Your task to perform on an android device: check google app version Image 0: 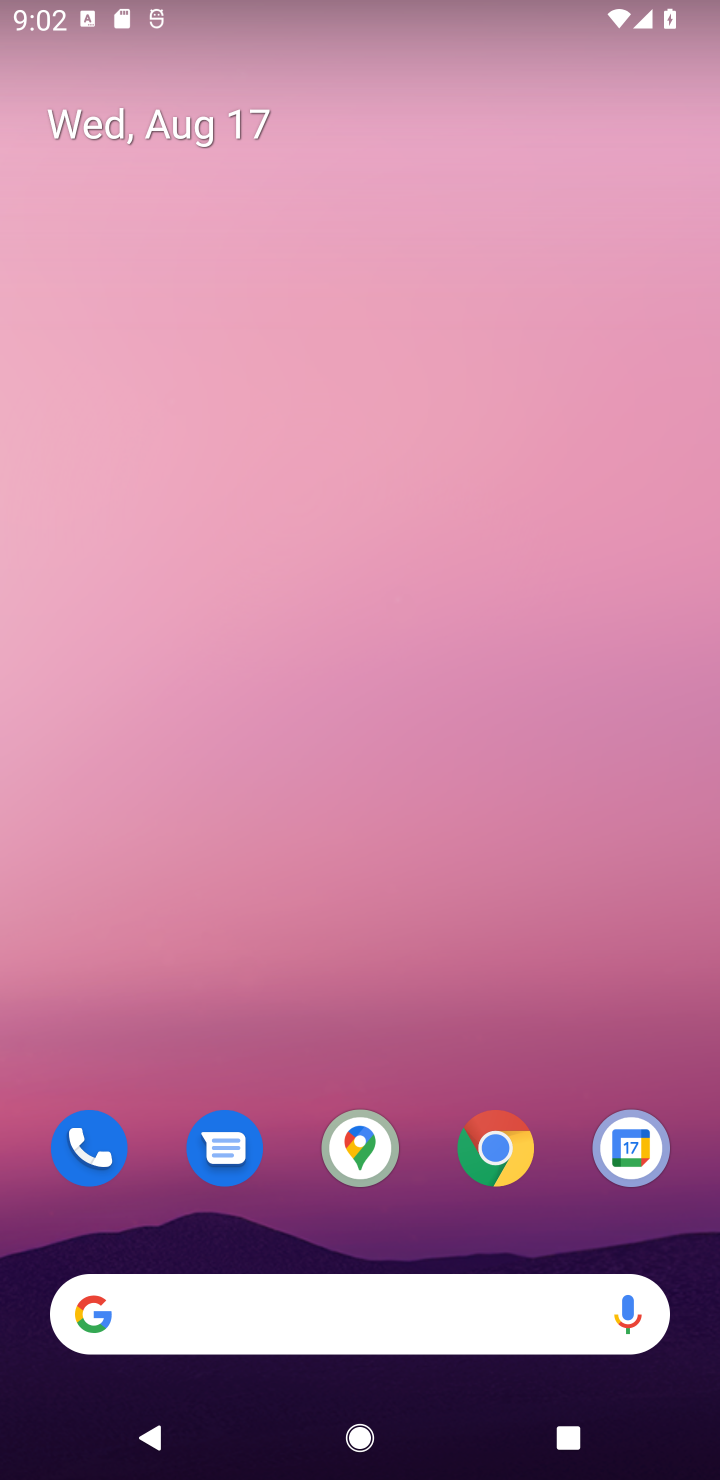
Step 0: click (499, 1146)
Your task to perform on an android device: check google app version Image 1: 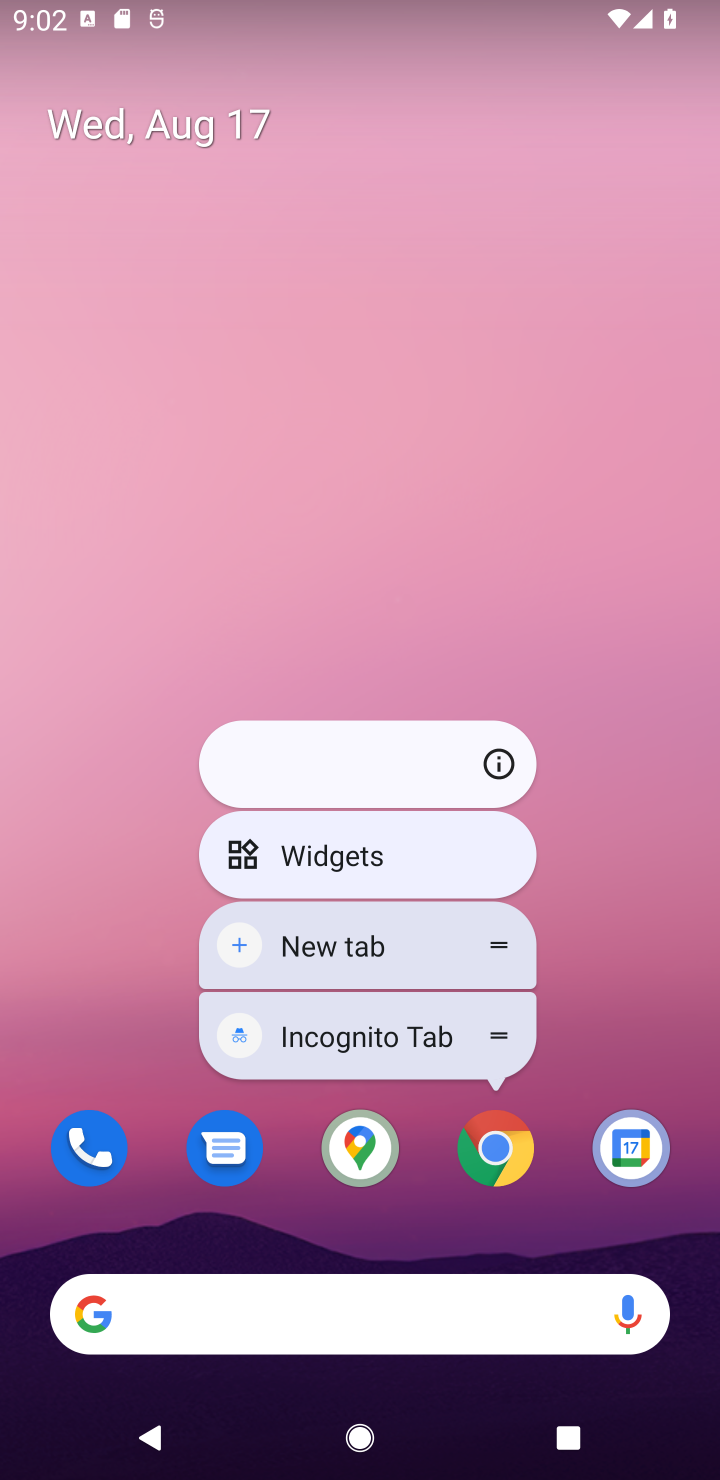
Step 1: click (499, 1146)
Your task to perform on an android device: check google app version Image 2: 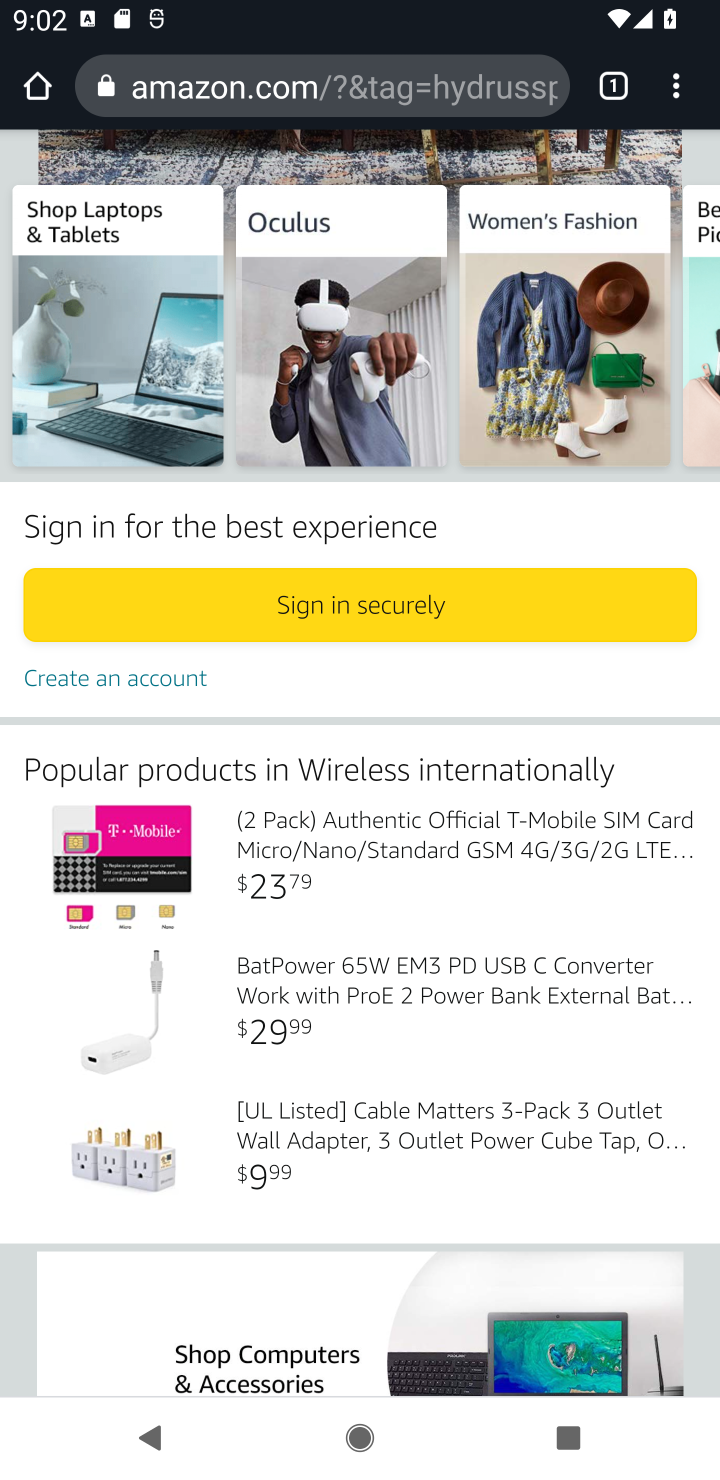
Step 2: click (668, 104)
Your task to perform on an android device: check google app version Image 3: 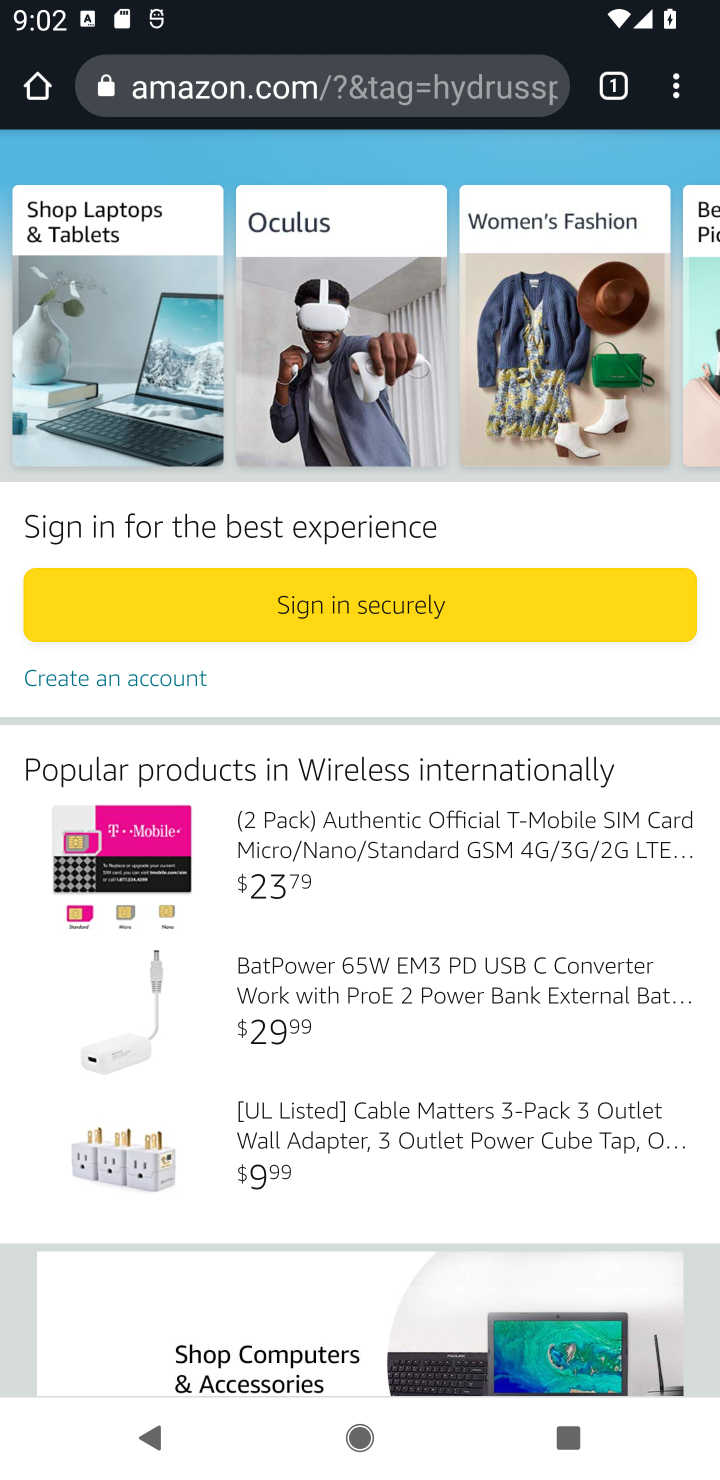
Step 3: click (677, 104)
Your task to perform on an android device: check google app version Image 4: 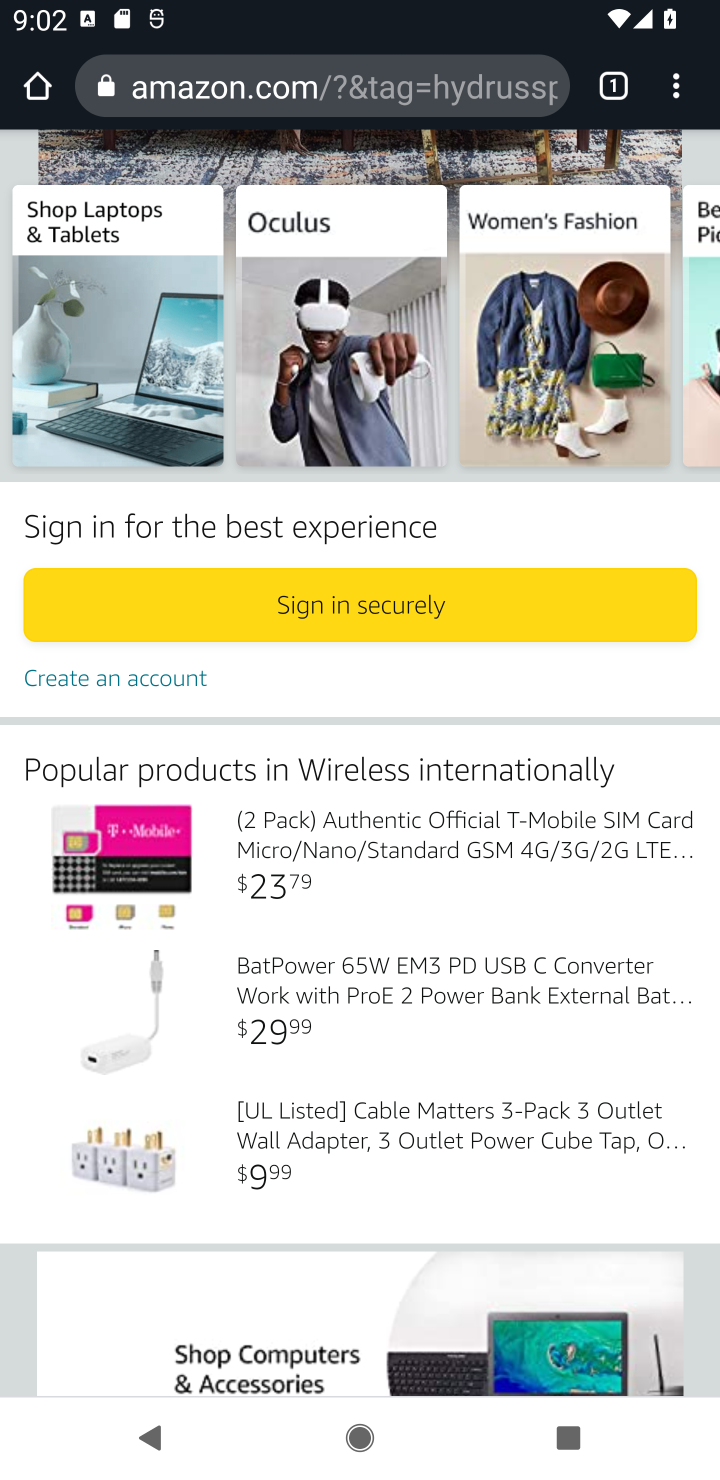
Step 4: click (670, 93)
Your task to perform on an android device: check google app version Image 5: 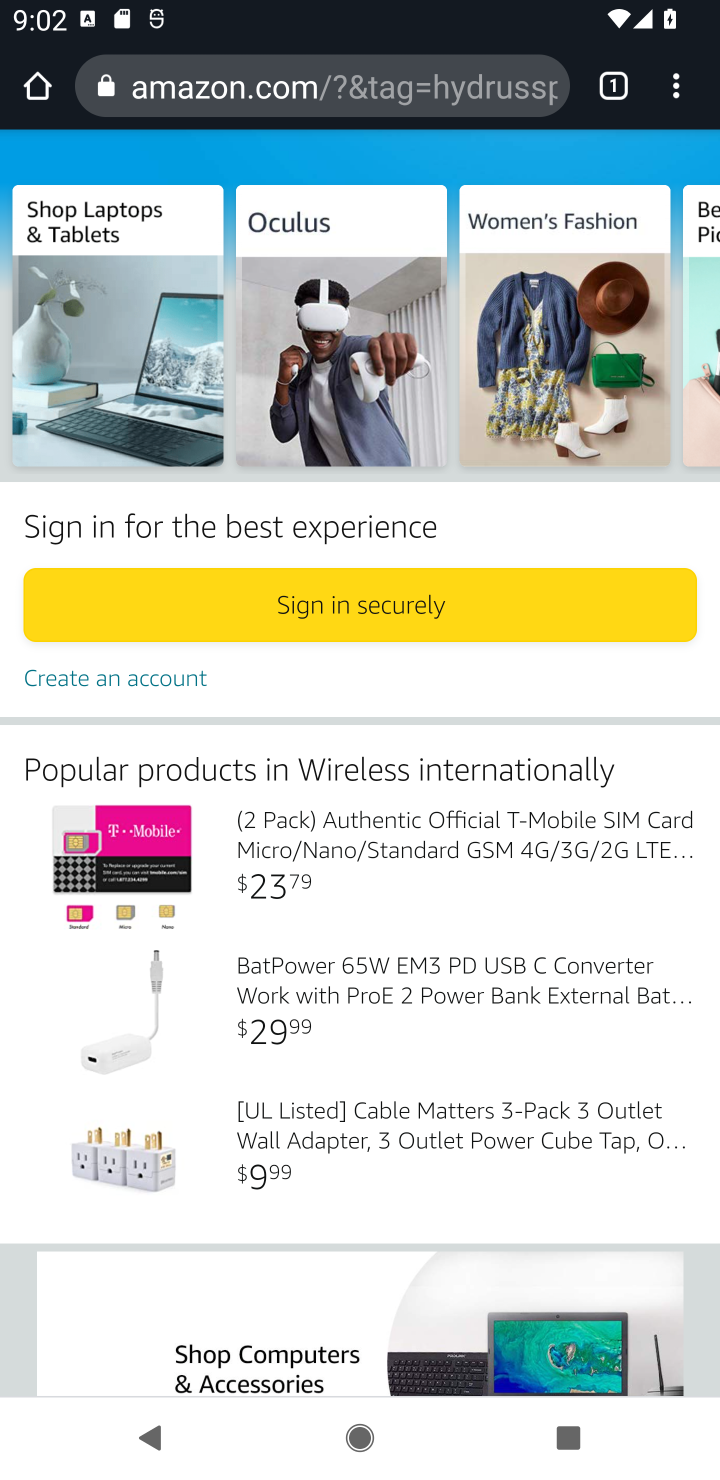
Step 5: click (668, 108)
Your task to perform on an android device: check google app version Image 6: 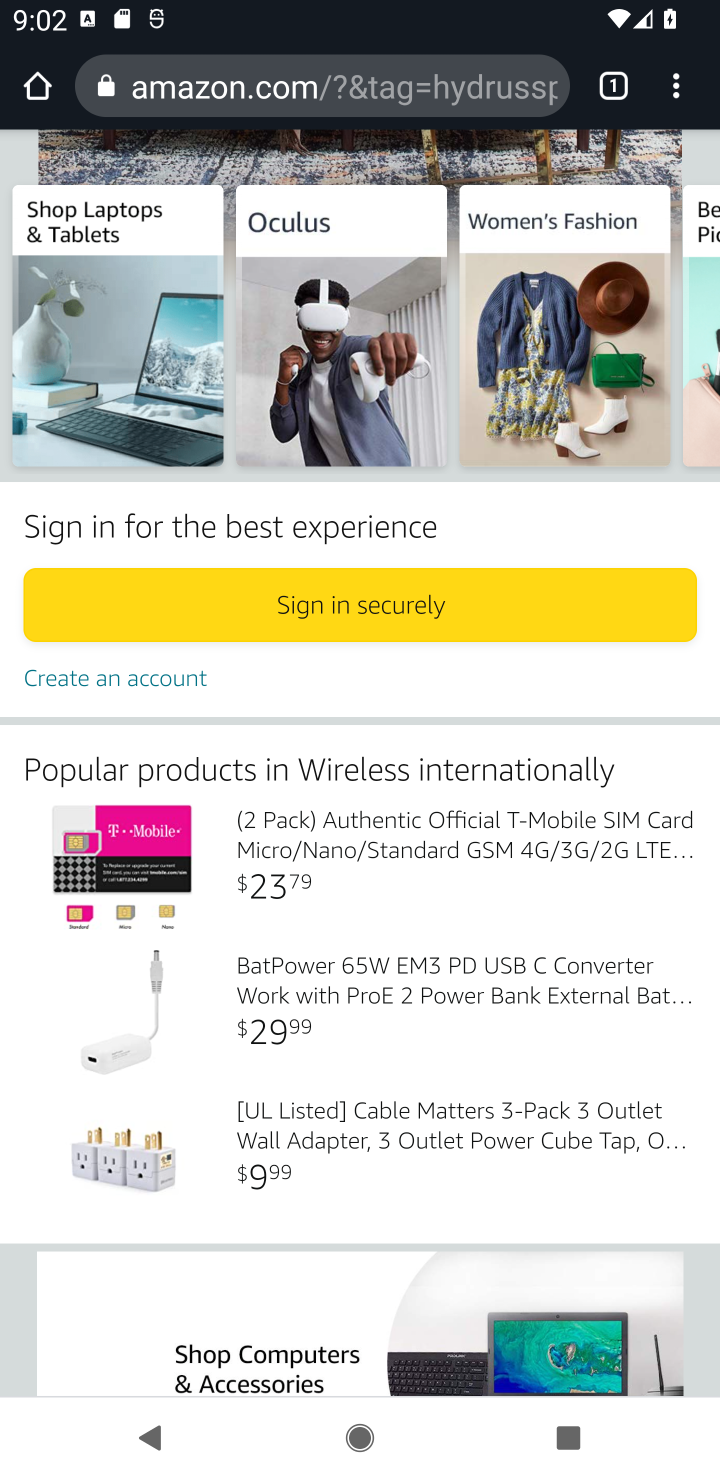
Step 6: task complete